Your task to perform on an android device: Open CNN.com Image 0: 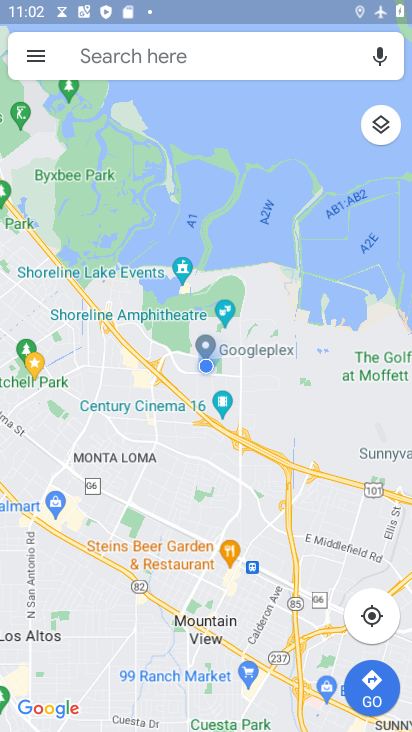
Step 0: press back button
Your task to perform on an android device: Open CNN.com Image 1: 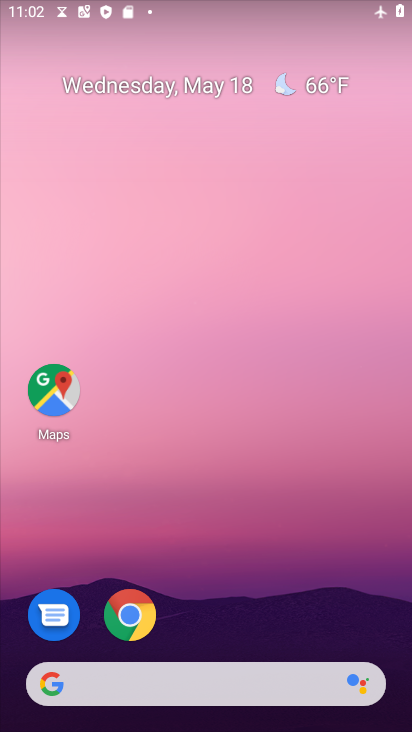
Step 1: drag from (222, 583) to (220, 39)
Your task to perform on an android device: Open CNN.com Image 2: 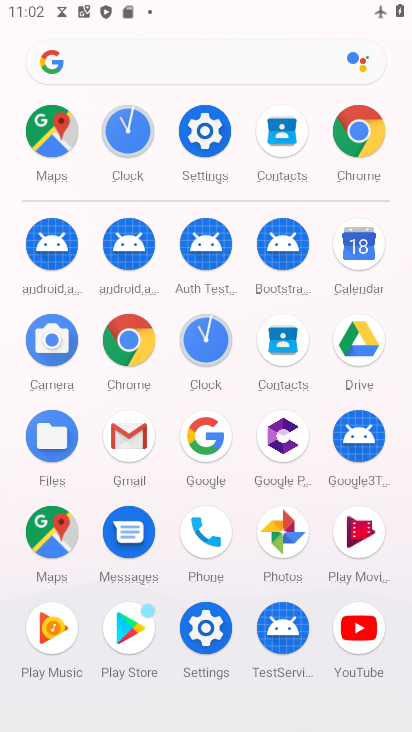
Step 2: drag from (5, 554) to (11, 313)
Your task to perform on an android device: Open CNN.com Image 3: 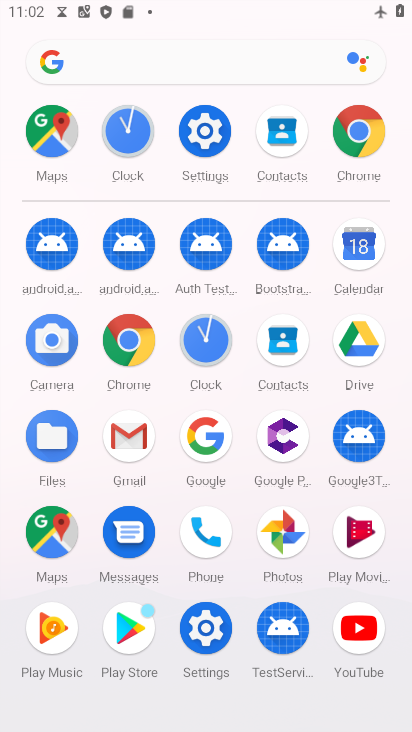
Step 3: click (137, 340)
Your task to perform on an android device: Open CNN.com Image 4: 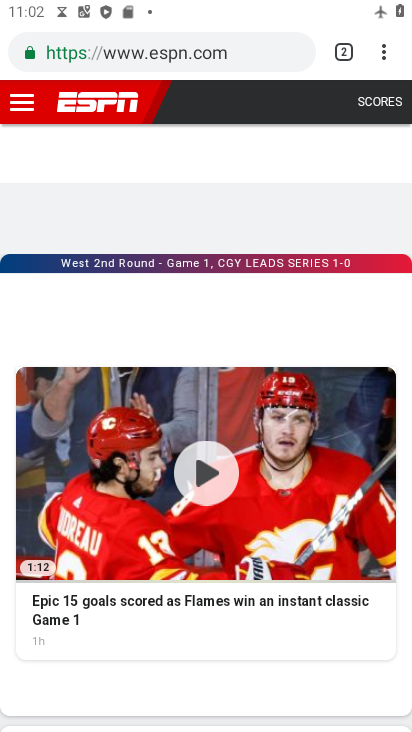
Step 4: click (170, 41)
Your task to perform on an android device: Open CNN.com Image 5: 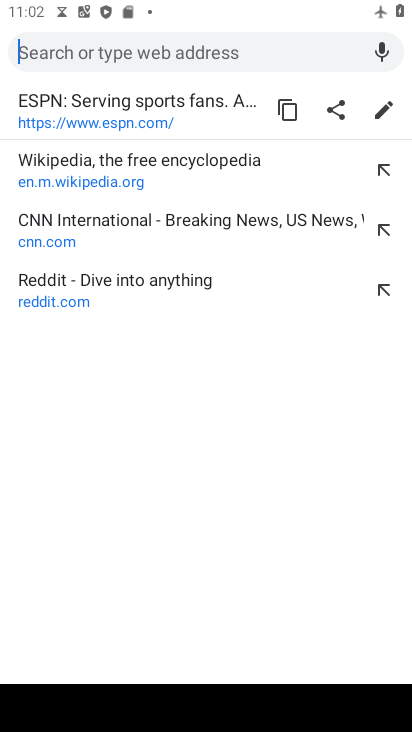
Step 5: click (152, 225)
Your task to perform on an android device: Open CNN.com Image 6: 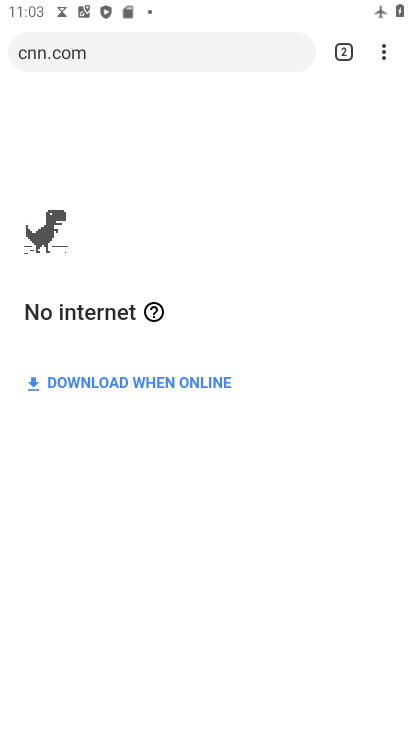
Step 6: task complete